Your task to perform on an android device: turn pop-ups off in chrome Image 0: 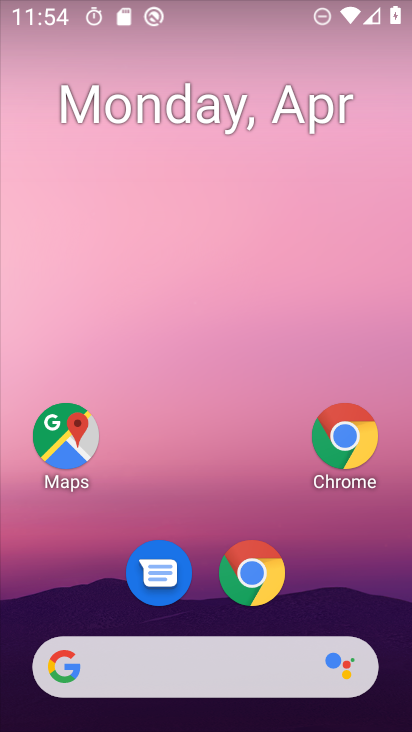
Step 0: click (345, 420)
Your task to perform on an android device: turn pop-ups off in chrome Image 1: 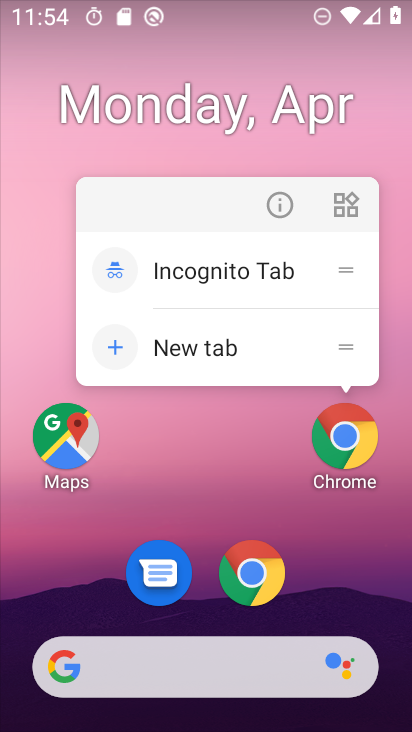
Step 1: click (344, 408)
Your task to perform on an android device: turn pop-ups off in chrome Image 2: 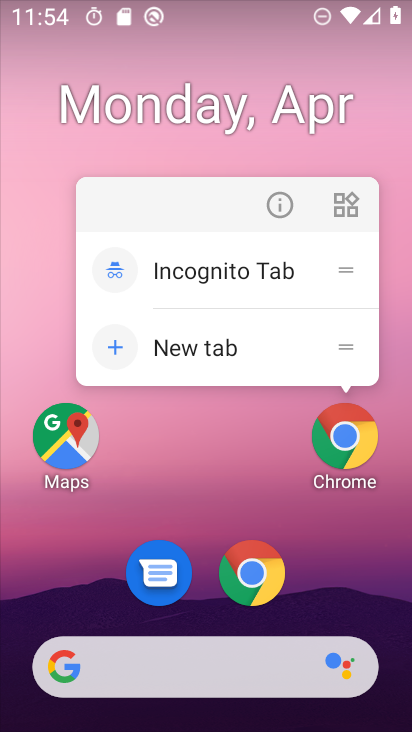
Step 2: click (359, 440)
Your task to perform on an android device: turn pop-ups off in chrome Image 3: 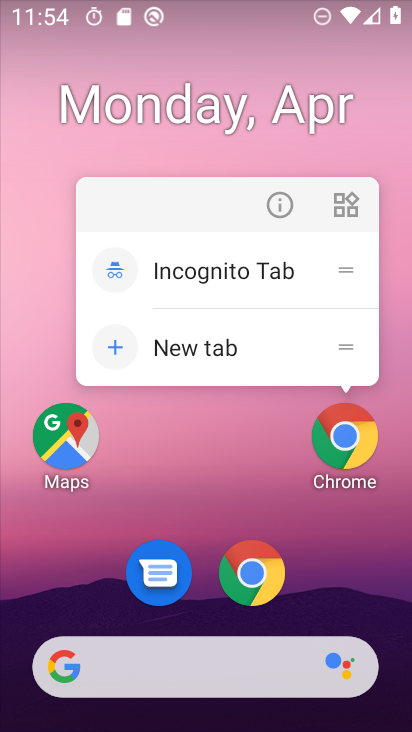
Step 3: click (348, 408)
Your task to perform on an android device: turn pop-ups off in chrome Image 4: 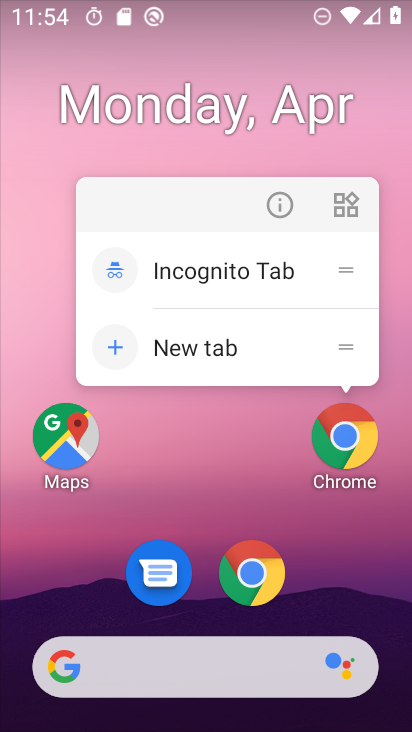
Step 4: click (330, 457)
Your task to perform on an android device: turn pop-ups off in chrome Image 5: 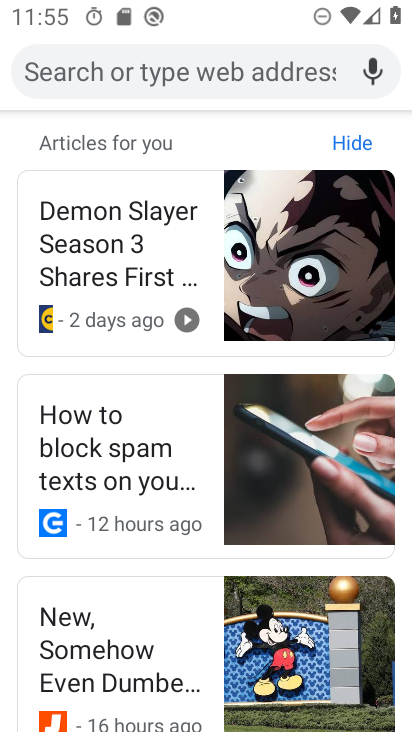
Step 5: drag from (160, 275) to (153, 605)
Your task to perform on an android device: turn pop-ups off in chrome Image 6: 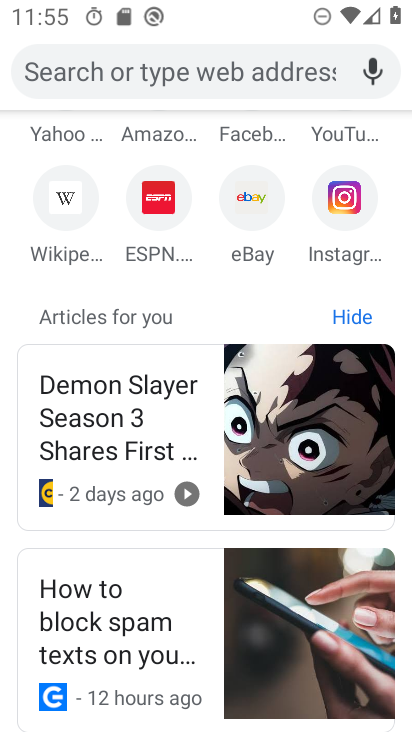
Step 6: drag from (112, 275) to (127, 529)
Your task to perform on an android device: turn pop-ups off in chrome Image 7: 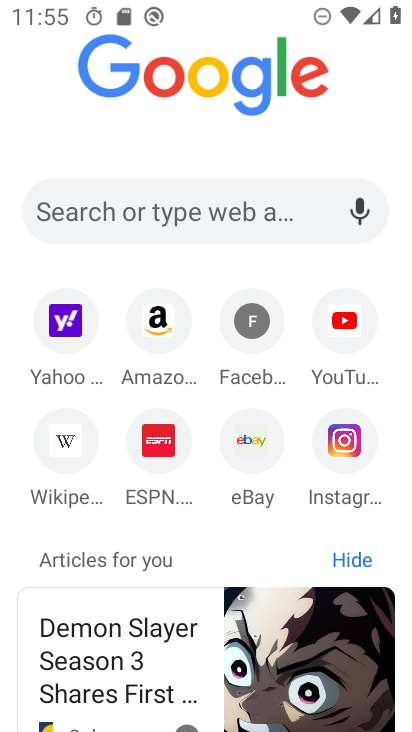
Step 7: drag from (217, 83) to (234, 472)
Your task to perform on an android device: turn pop-ups off in chrome Image 8: 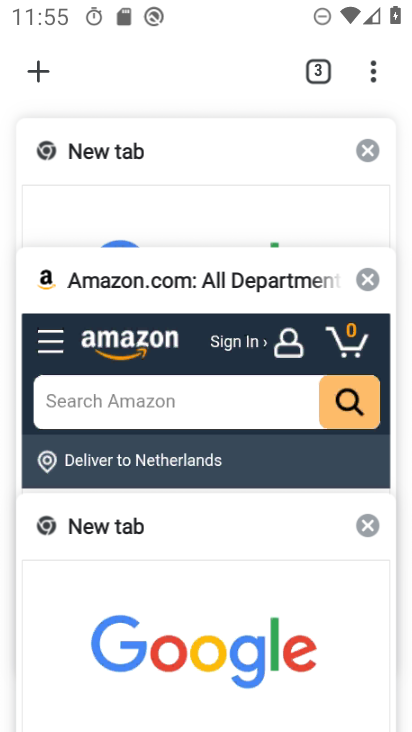
Step 8: click (367, 63)
Your task to perform on an android device: turn pop-ups off in chrome Image 9: 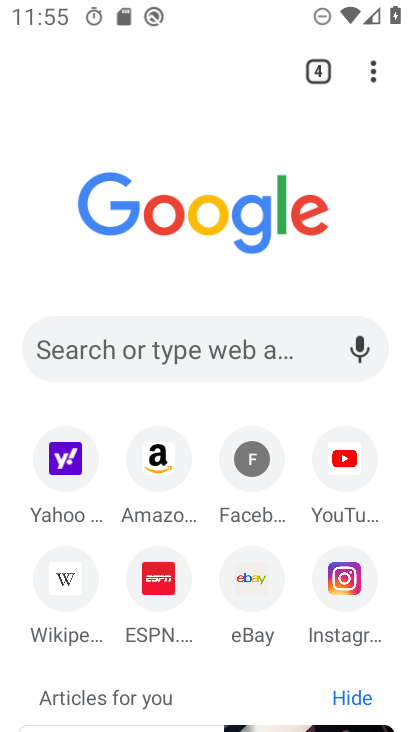
Step 9: drag from (367, 64) to (219, 576)
Your task to perform on an android device: turn pop-ups off in chrome Image 10: 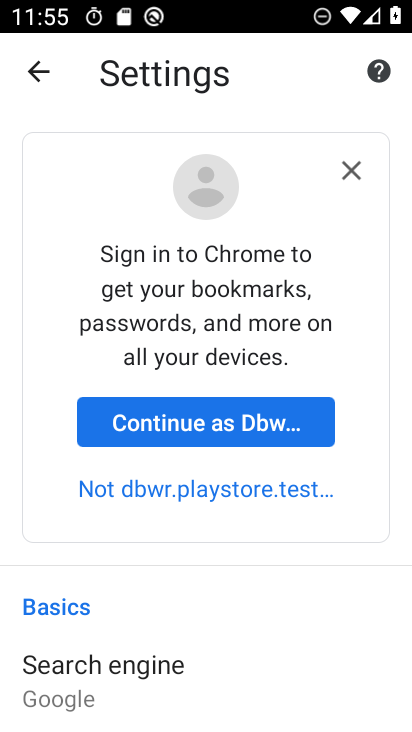
Step 10: click (186, 433)
Your task to perform on an android device: turn pop-ups off in chrome Image 11: 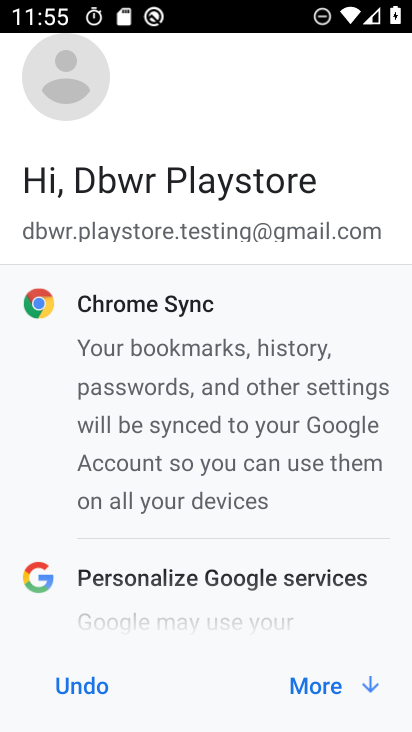
Step 11: drag from (226, 504) to (243, 188)
Your task to perform on an android device: turn pop-ups off in chrome Image 12: 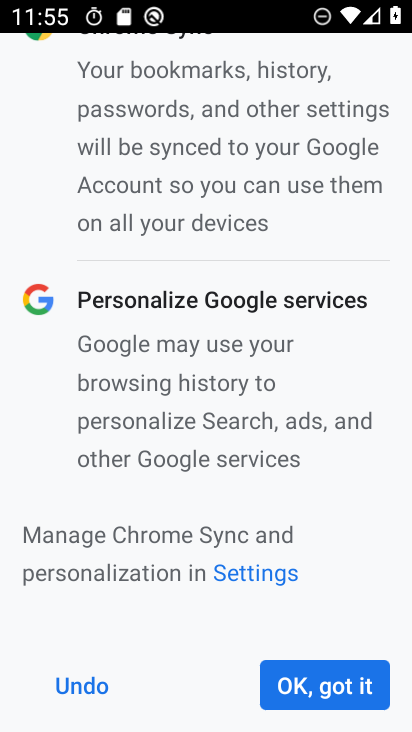
Step 12: drag from (280, 506) to (254, 137)
Your task to perform on an android device: turn pop-ups off in chrome Image 13: 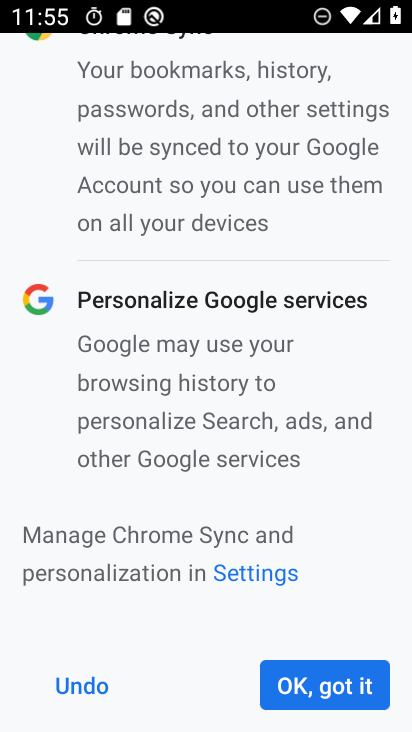
Step 13: click (292, 700)
Your task to perform on an android device: turn pop-ups off in chrome Image 14: 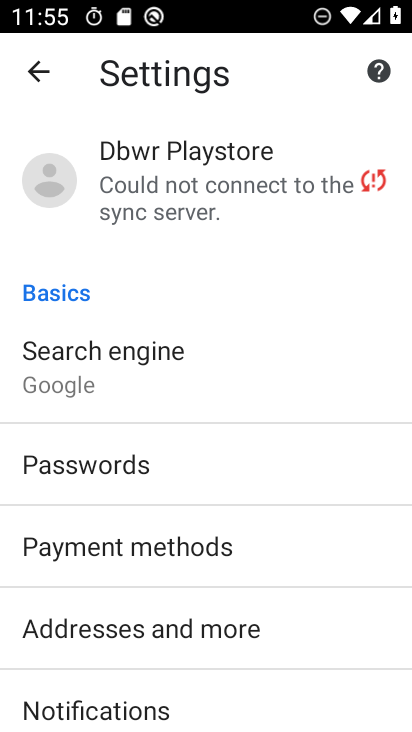
Step 14: drag from (270, 615) to (263, 315)
Your task to perform on an android device: turn pop-ups off in chrome Image 15: 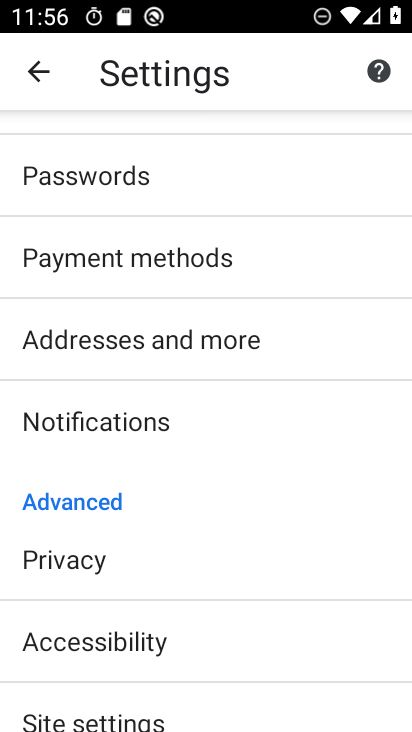
Step 15: drag from (184, 627) to (219, 293)
Your task to perform on an android device: turn pop-ups off in chrome Image 16: 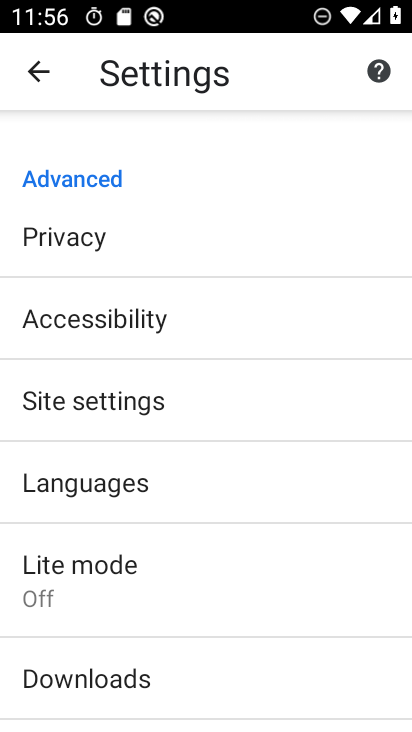
Step 16: click (133, 414)
Your task to perform on an android device: turn pop-ups off in chrome Image 17: 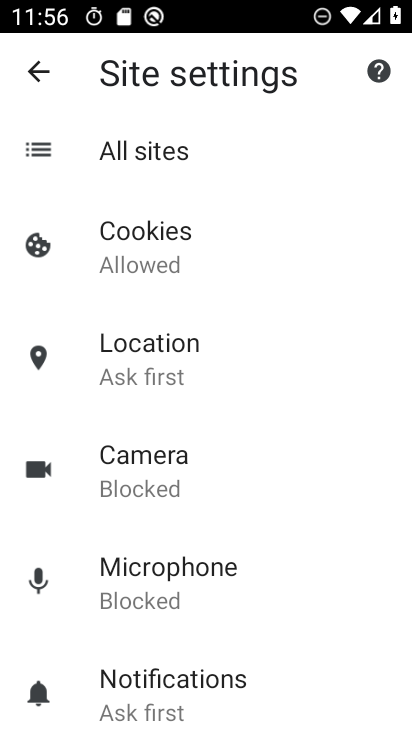
Step 17: drag from (192, 628) to (186, 224)
Your task to perform on an android device: turn pop-ups off in chrome Image 18: 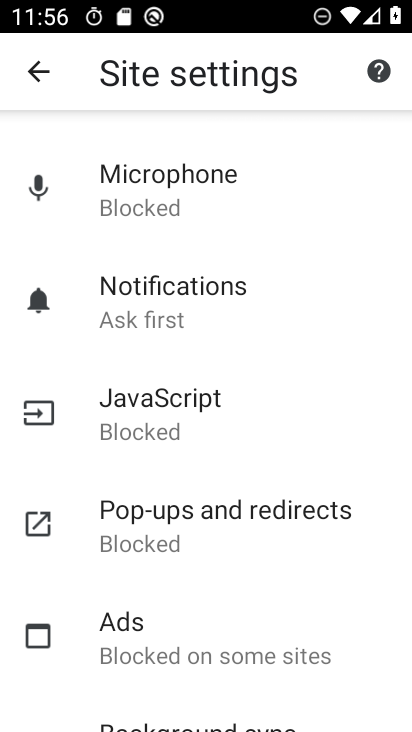
Step 18: click (165, 530)
Your task to perform on an android device: turn pop-ups off in chrome Image 19: 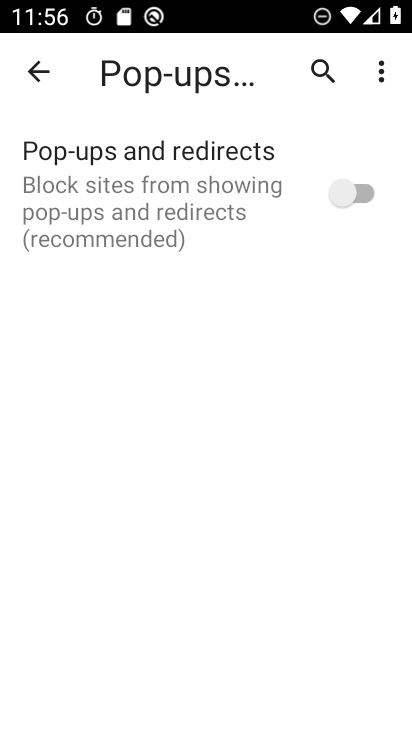
Step 19: task complete